Your task to perform on an android device: Open Google Chrome and click the shortcut for Amazon.com Image 0: 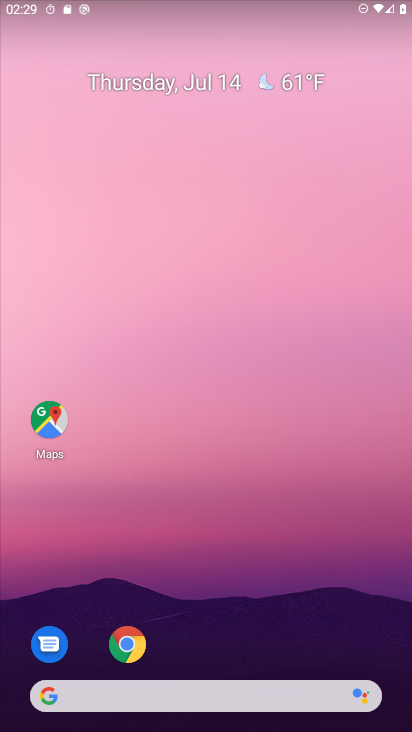
Step 0: drag from (263, 513) to (228, 164)
Your task to perform on an android device: Open Google Chrome and click the shortcut for Amazon.com Image 1: 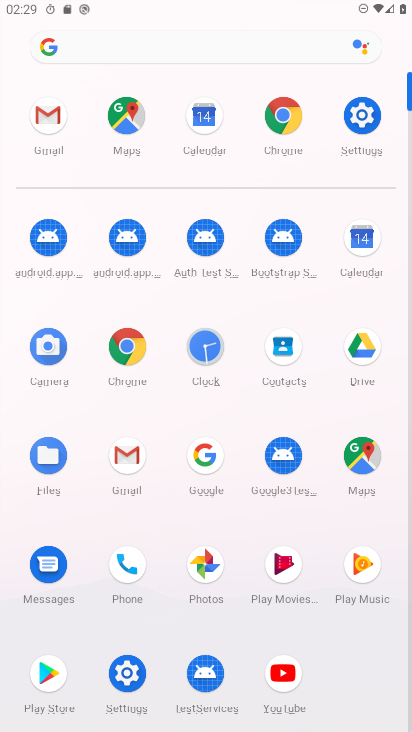
Step 1: click (130, 344)
Your task to perform on an android device: Open Google Chrome and click the shortcut for Amazon.com Image 2: 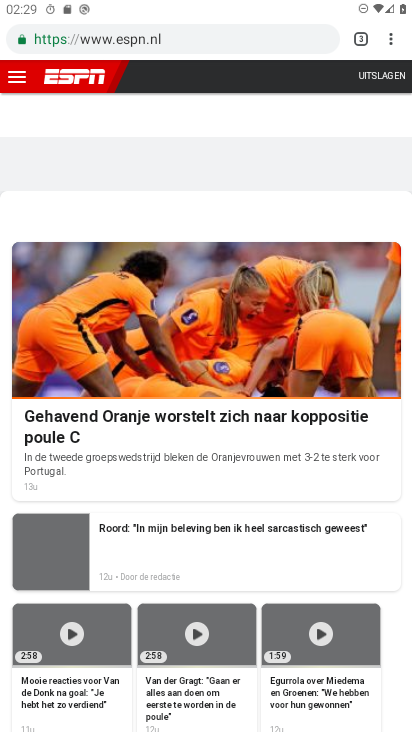
Step 2: drag from (397, 38) to (320, 72)
Your task to perform on an android device: Open Google Chrome and click the shortcut for Amazon.com Image 3: 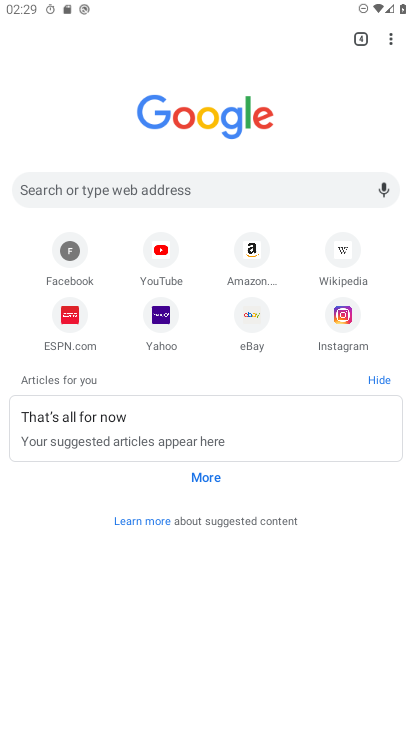
Step 3: click (259, 249)
Your task to perform on an android device: Open Google Chrome and click the shortcut for Amazon.com Image 4: 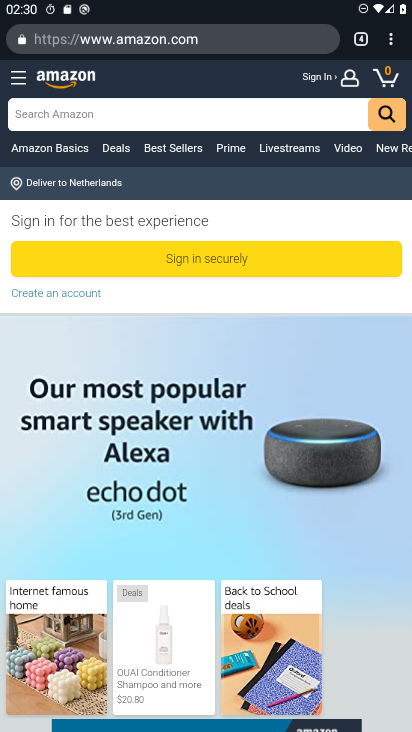
Step 4: task complete